Your task to perform on an android device: change notifications settings Image 0: 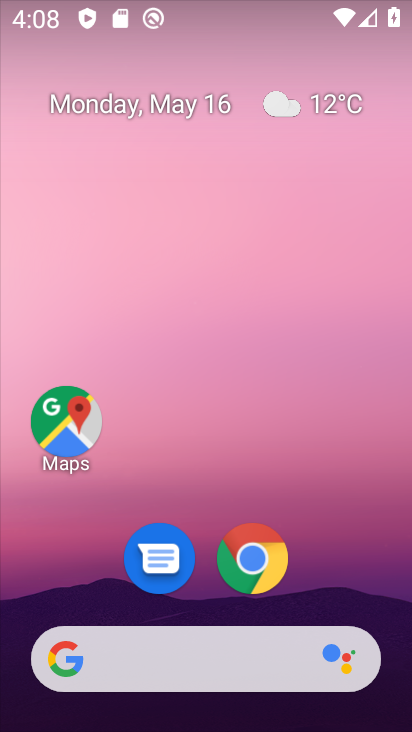
Step 0: drag from (341, 588) to (333, 162)
Your task to perform on an android device: change notifications settings Image 1: 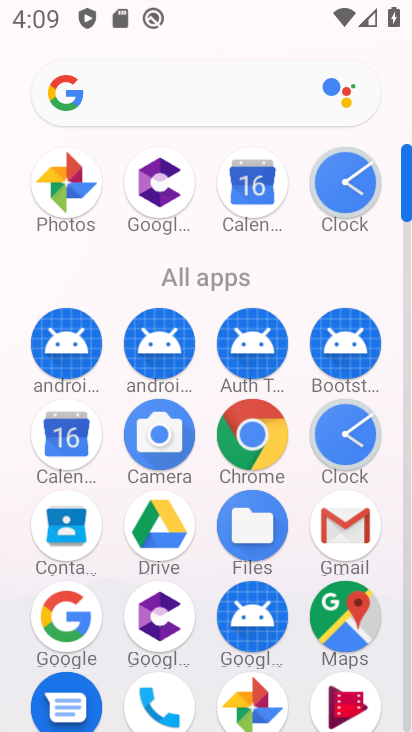
Step 1: drag from (193, 537) to (184, 256)
Your task to perform on an android device: change notifications settings Image 2: 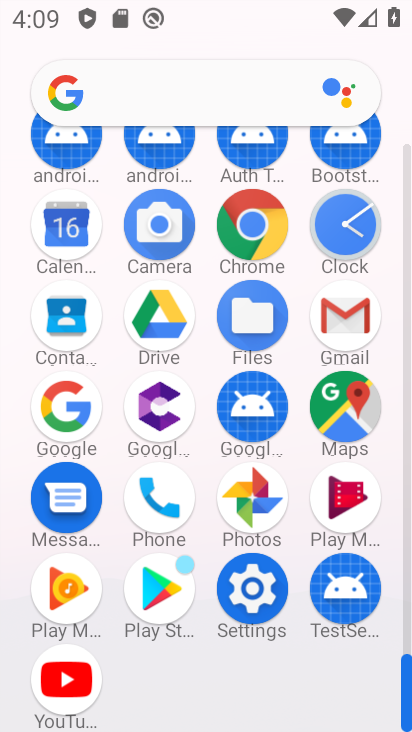
Step 2: click (233, 605)
Your task to perform on an android device: change notifications settings Image 3: 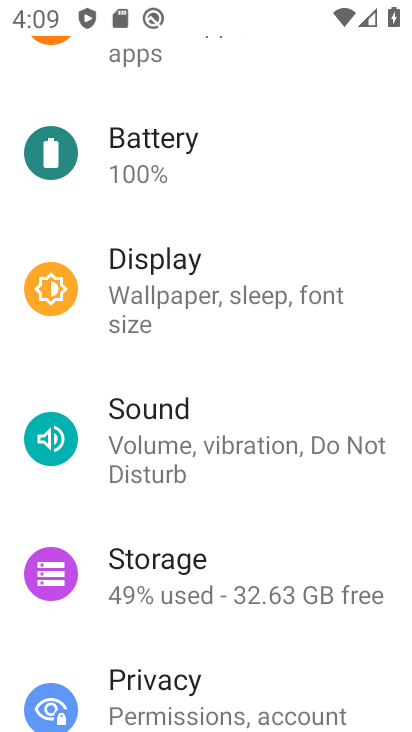
Step 3: drag from (299, 261) to (243, 650)
Your task to perform on an android device: change notifications settings Image 4: 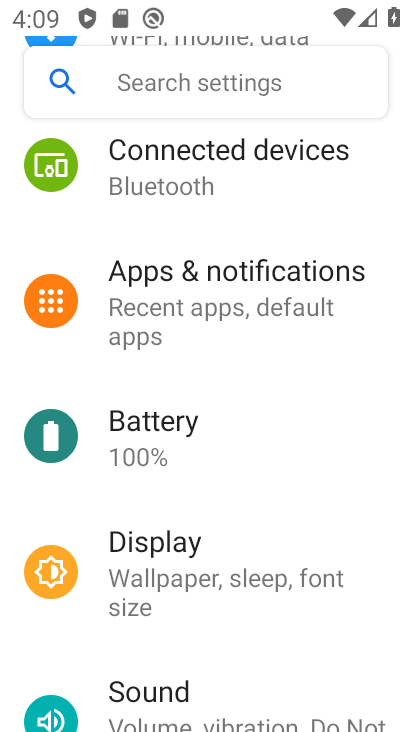
Step 4: click (248, 309)
Your task to perform on an android device: change notifications settings Image 5: 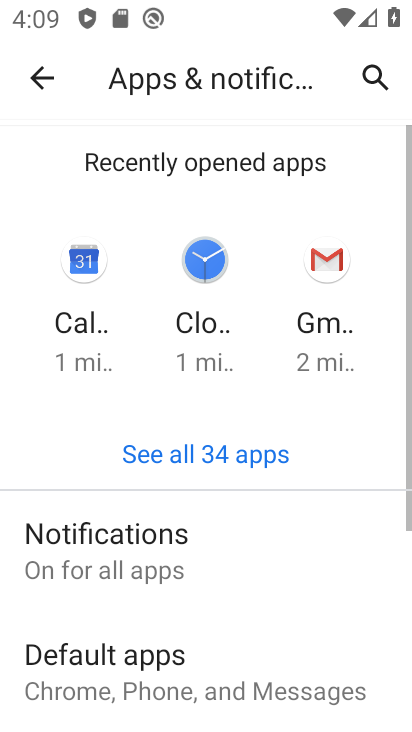
Step 5: click (155, 564)
Your task to perform on an android device: change notifications settings Image 6: 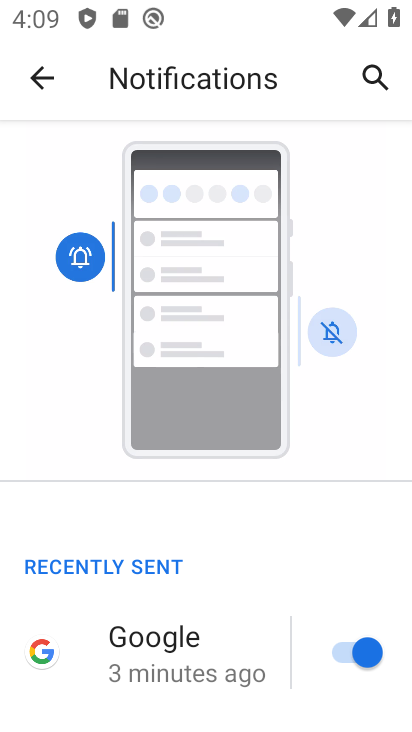
Step 6: task complete